Your task to perform on an android device: See recent photos Image 0: 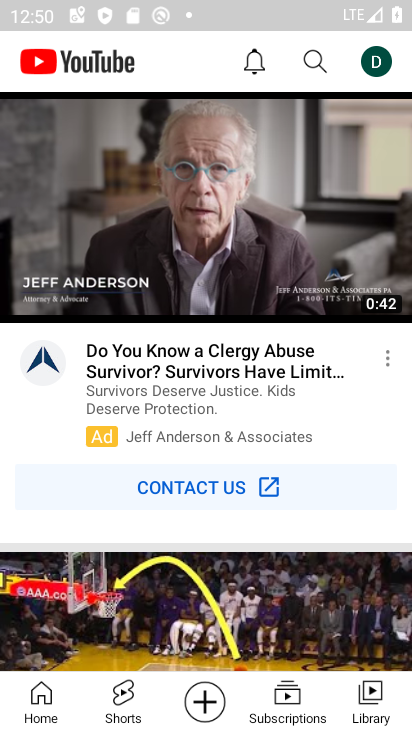
Step 0: press home button
Your task to perform on an android device: See recent photos Image 1: 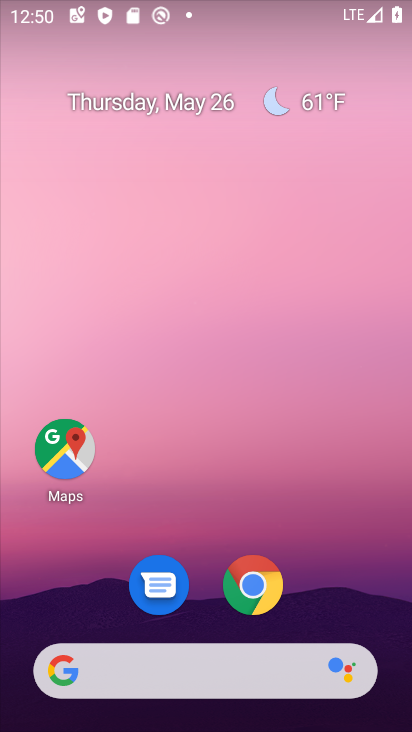
Step 1: drag from (239, 513) to (287, 48)
Your task to perform on an android device: See recent photos Image 2: 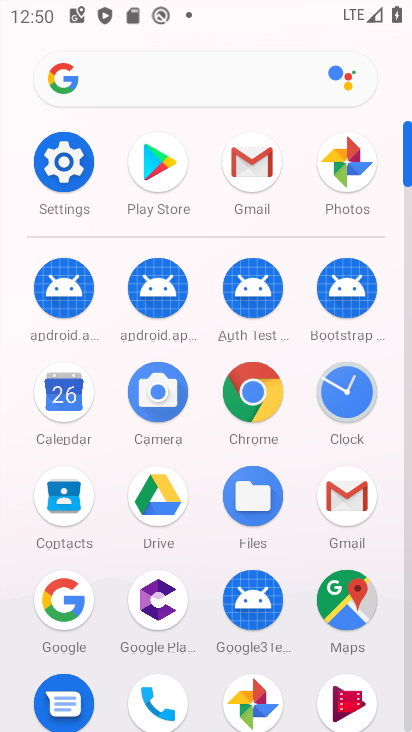
Step 2: click (335, 149)
Your task to perform on an android device: See recent photos Image 3: 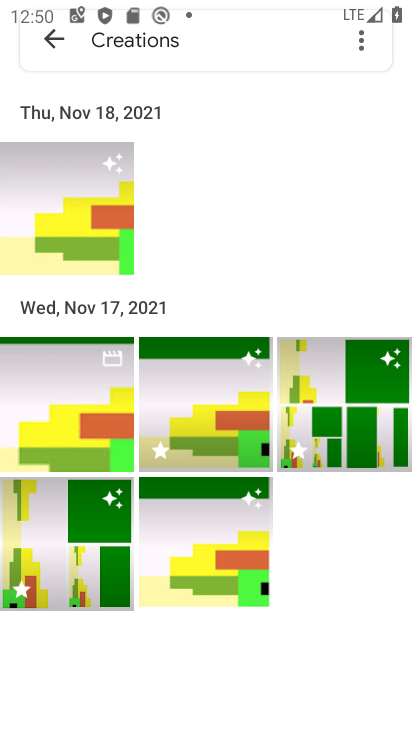
Step 3: task complete